Your task to perform on an android device: Open eBay Image 0: 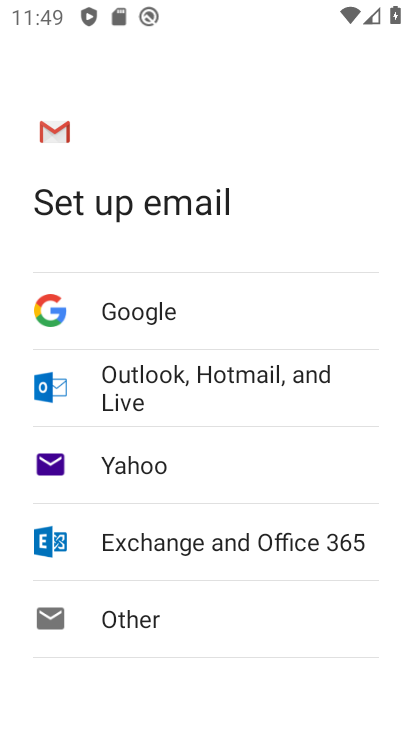
Step 0: press home button
Your task to perform on an android device: Open eBay Image 1: 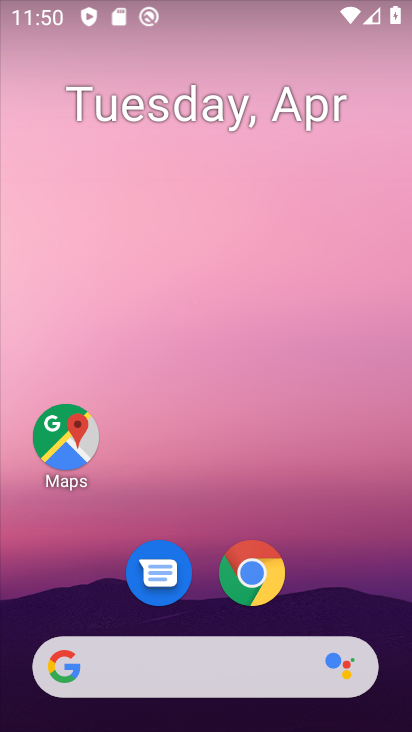
Step 1: drag from (391, 572) to (378, 89)
Your task to perform on an android device: Open eBay Image 2: 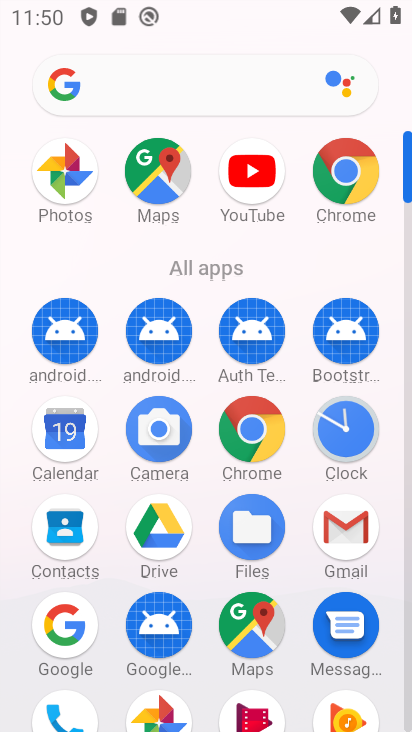
Step 2: click (246, 420)
Your task to perform on an android device: Open eBay Image 3: 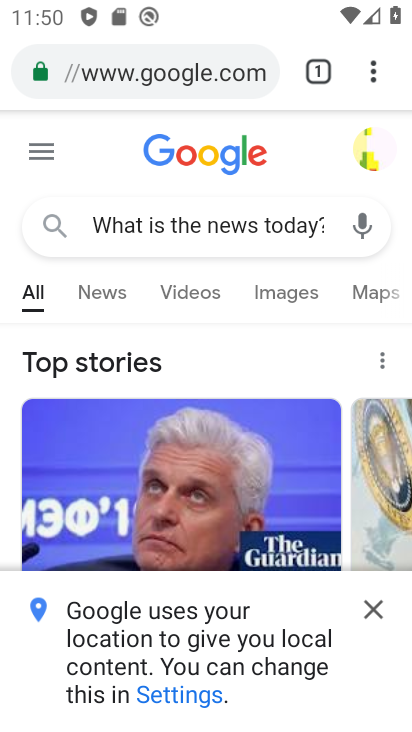
Step 3: click (379, 72)
Your task to perform on an android device: Open eBay Image 4: 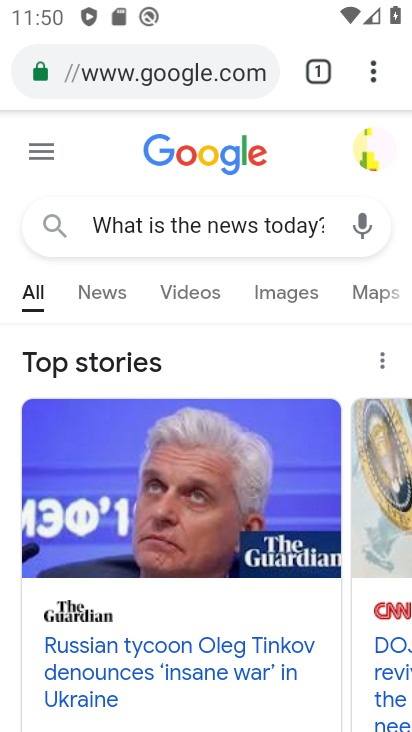
Step 4: drag from (379, 72) to (318, 147)
Your task to perform on an android device: Open eBay Image 5: 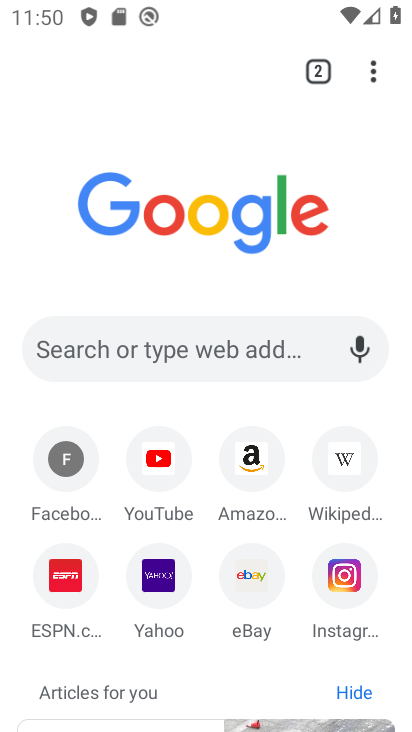
Step 5: click (264, 581)
Your task to perform on an android device: Open eBay Image 6: 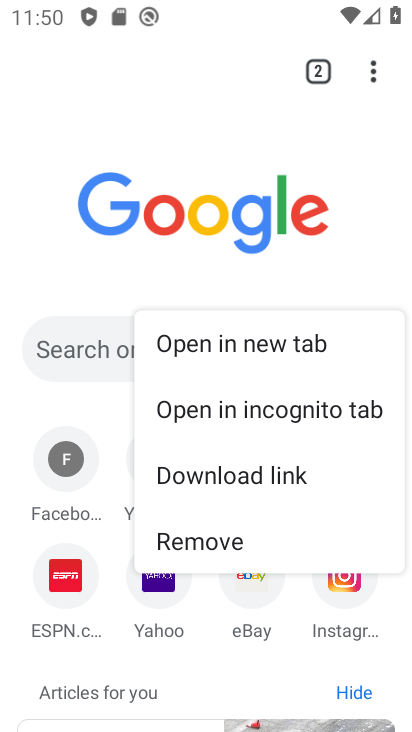
Step 6: click (311, 339)
Your task to perform on an android device: Open eBay Image 7: 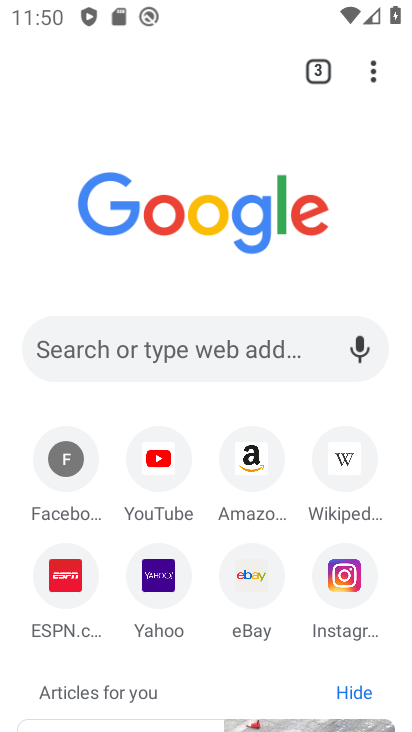
Step 7: click (254, 601)
Your task to perform on an android device: Open eBay Image 8: 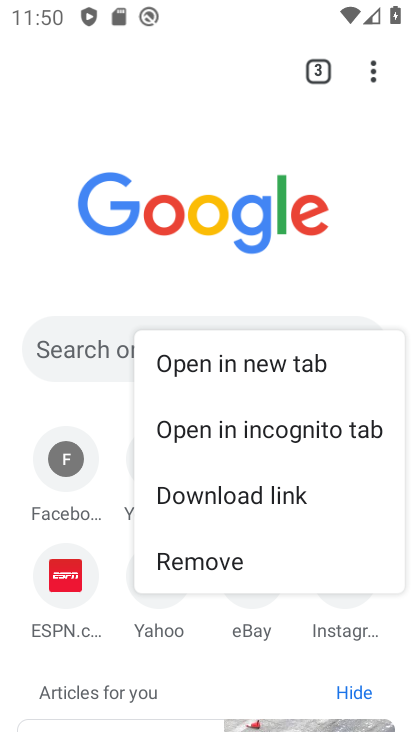
Step 8: click (254, 623)
Your task to perform on an android device: Open eBay Image 9: 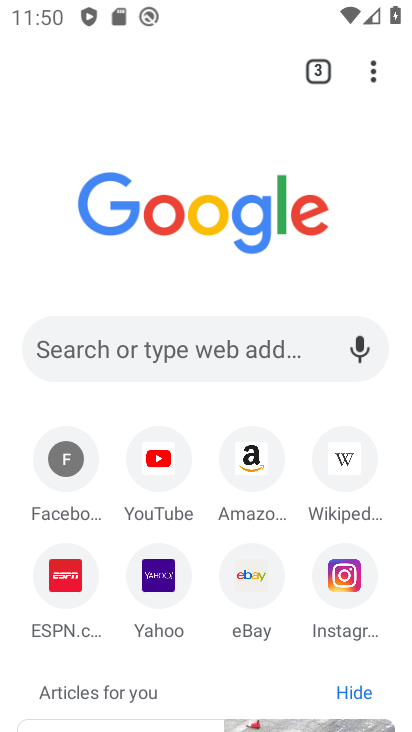
Step 9: click (250, 587)
Your task to perform on an android device: Open eBay Image 10: 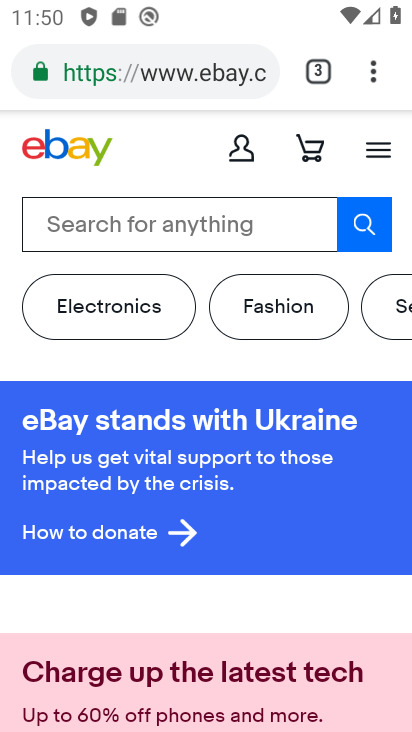
Step 10: task complete